Your task to perform on an android device: turn off location Image 0: 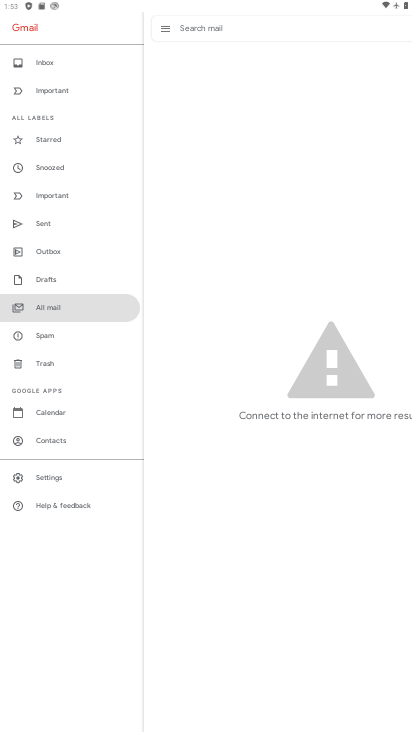
Step 0: press home button
Your task to perform on an android device: turn off location Image 1: 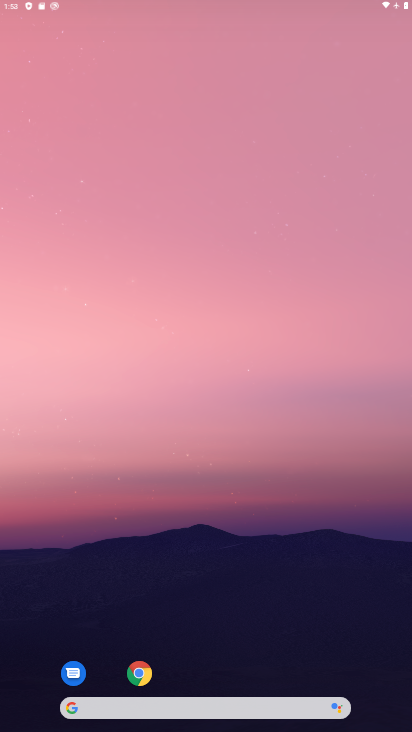
Step 1: drag from (201, 570) to (167, 116)
Your task to perform on an android device: turn off location Image 2: 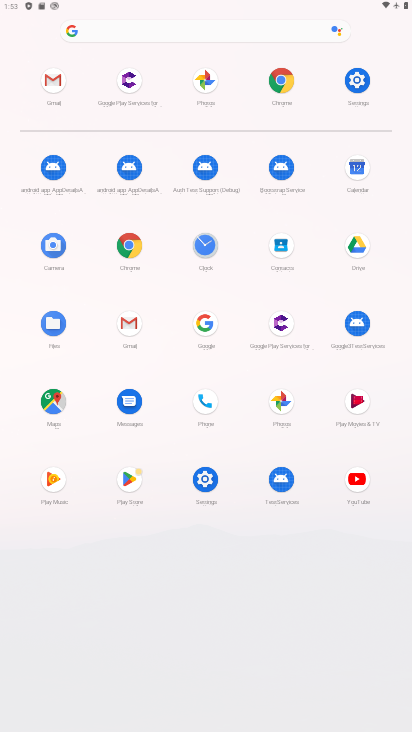
Step 2: click (368, 69)
Your task to perform on an android device: turn off location Image 3: 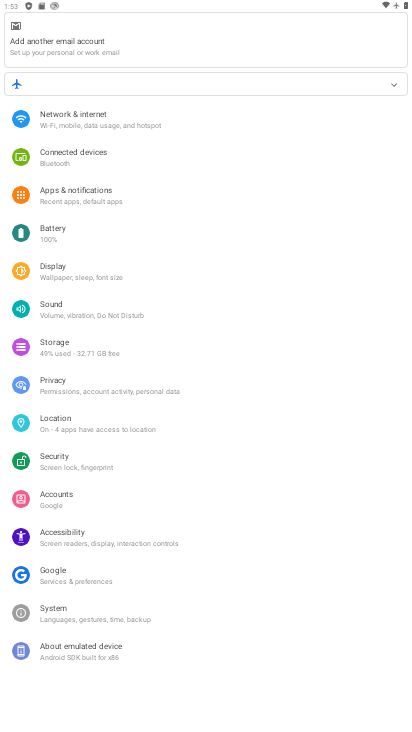
Step 3: click (33, 428)
Your task to perform on an android device: turn off location Image 4: 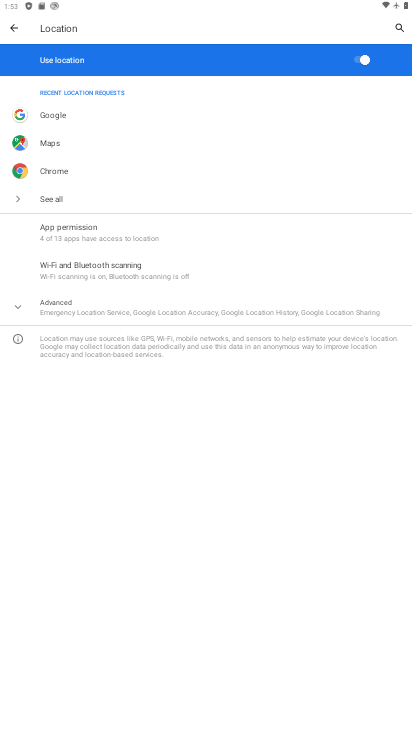
Step 4: click (357, 62)
Your task to perform on an android device: turn off location Image 5: 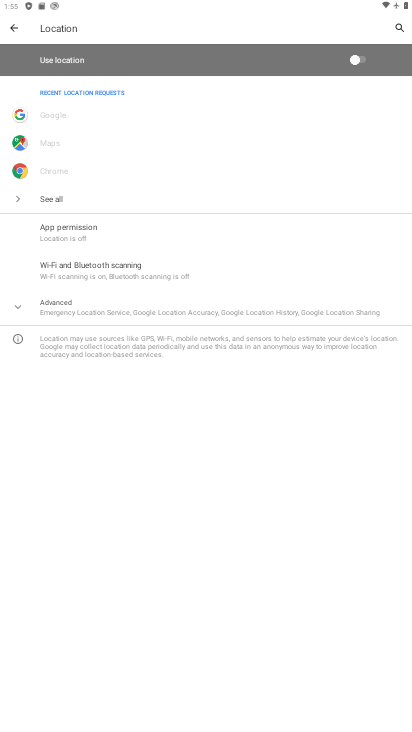
Step 5: task complete